Your task to perform on an android device: stop showing notifications on the lock screen Image 0: 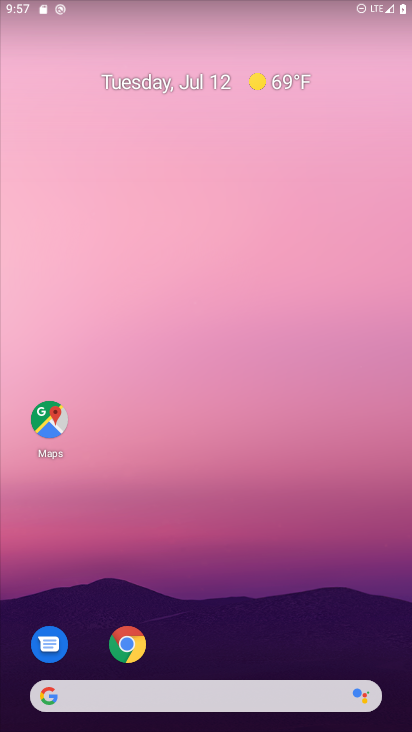
Step 0: drag from (223, 660) to (262, 29)
Your task to perform on an android device: stop showing notifications on the lock screen Image 1: 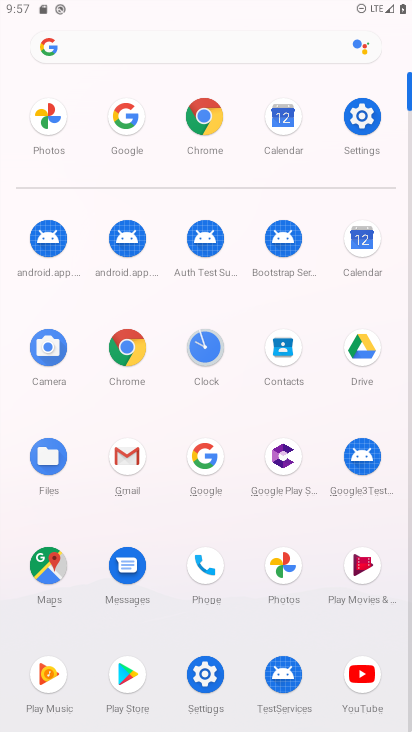
Step 1: click (361, 112)
Your task to perform on an android device: stop showing notifications on the lock screen Image 2: 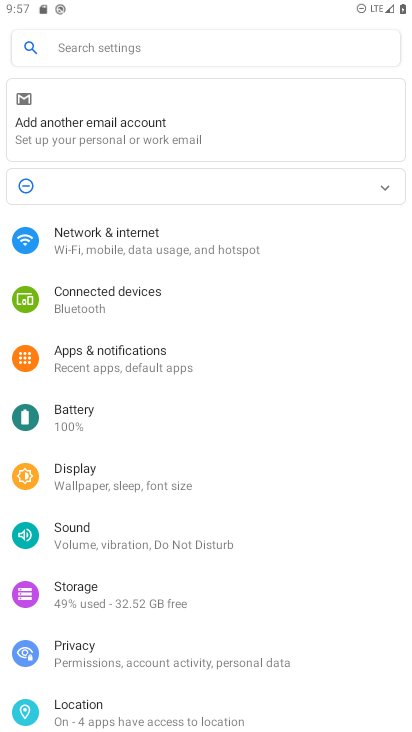
Step 2: click (174, 351)
Your task to perform on an android device: stop showing notifications on the lock screen Image 3: 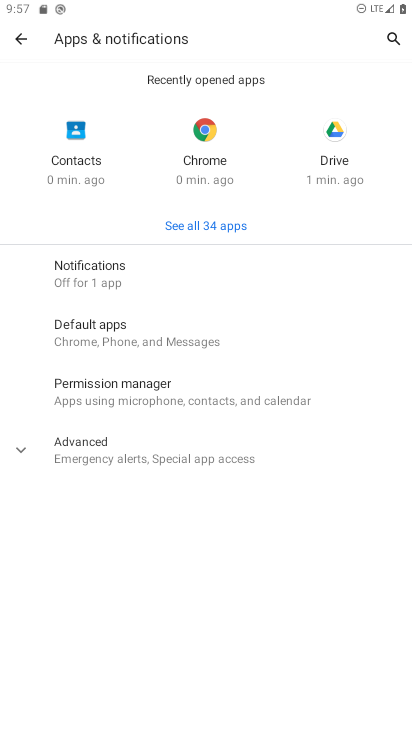
Step 3: click (128, 265)
Your task to perform on an android device: stop showing notifications on the lock screen Image 4: 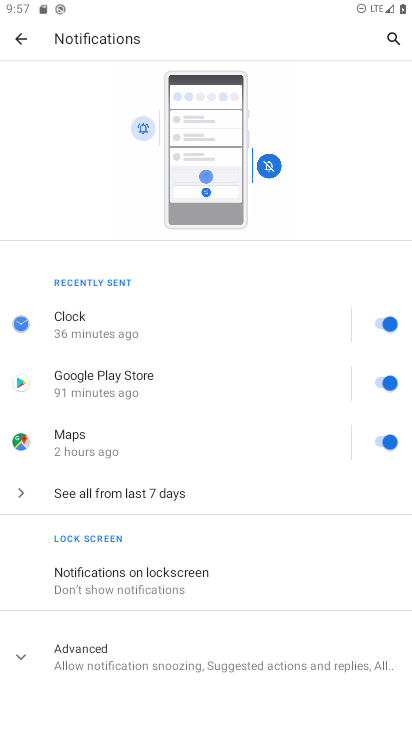
Step 4: click (104, 579)
Your task to perform on an android device: stop showing notifications on the lock screen Image 5: 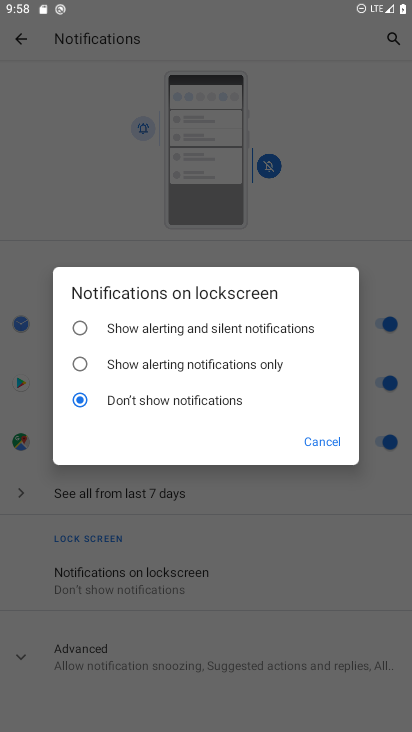
Step 5: task complete